Your task to perform on an android device: When is my next meeting? Image 0: 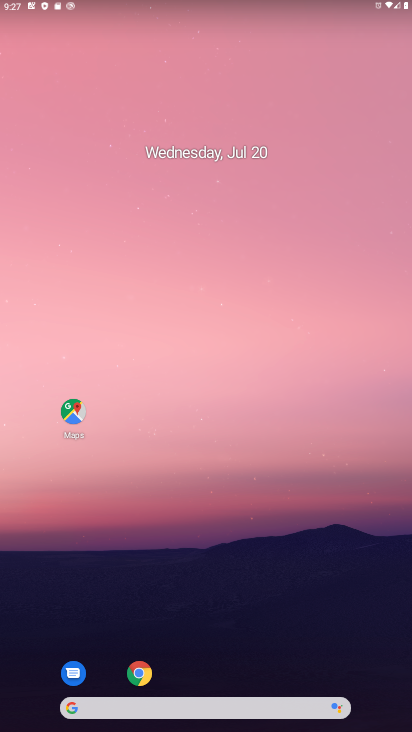
Step 0: drag from (205, 691) to (186, 225)
Your task to perform on an android device: When is my next meeting? Image 1: 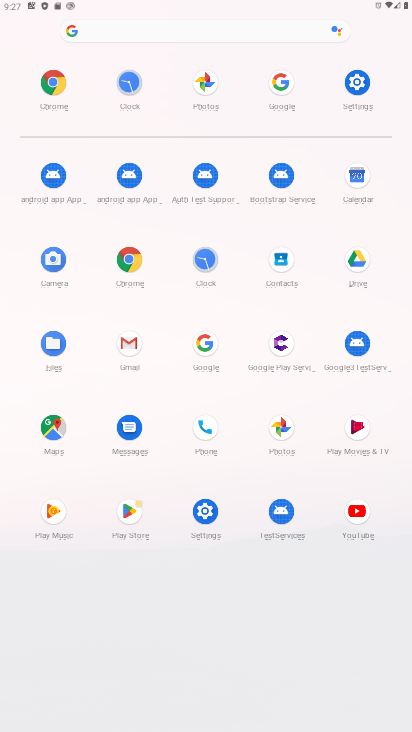
Step 1: click (355, 174)
Your task to perform on an android device: When is my next meeting? Image 2: 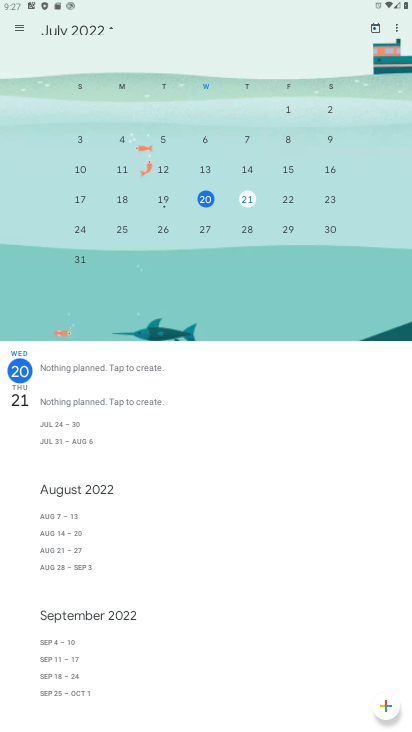
Step 2: click (245, 195)
Your task to perform on an android device: When is my next meeting? Image 3: 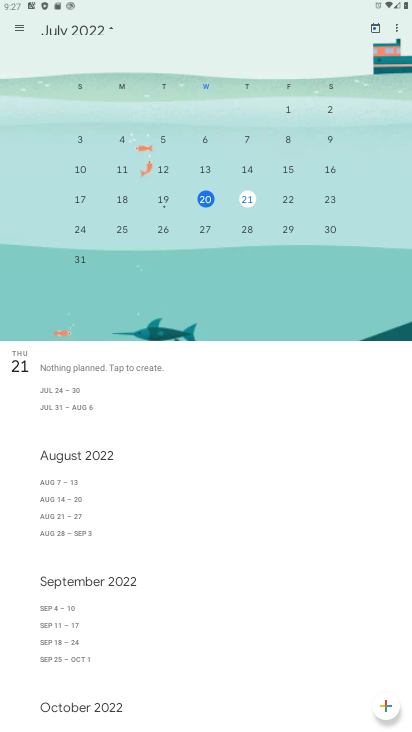
Step 3: click (110, 25)
Your task to perform on an android device: When is my next meeting? Image 4: 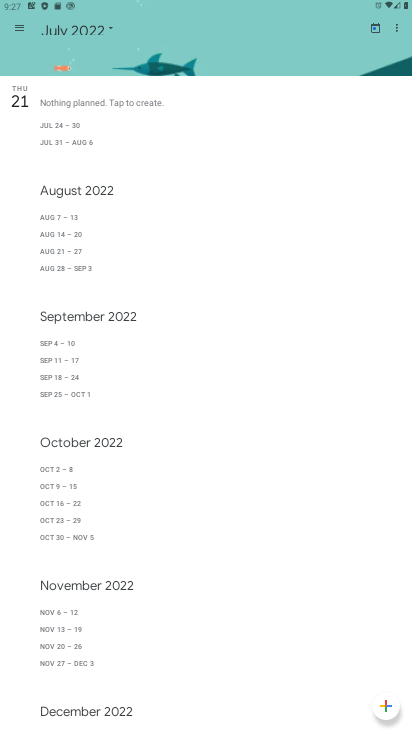
Step 4: task complete